Your task to perform on an android device: turn on the 12-hour format for clock Image 0: 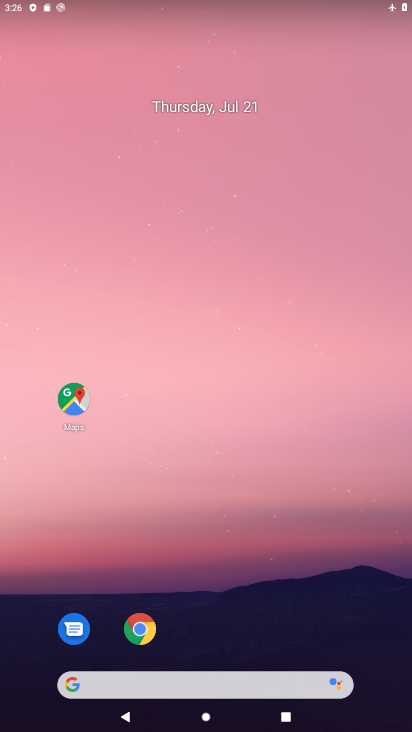
Step 0: drag from (281, 604) to (239, 29)
Your task to perform on an android device: turn on the 12-hour format for clock Image 1: 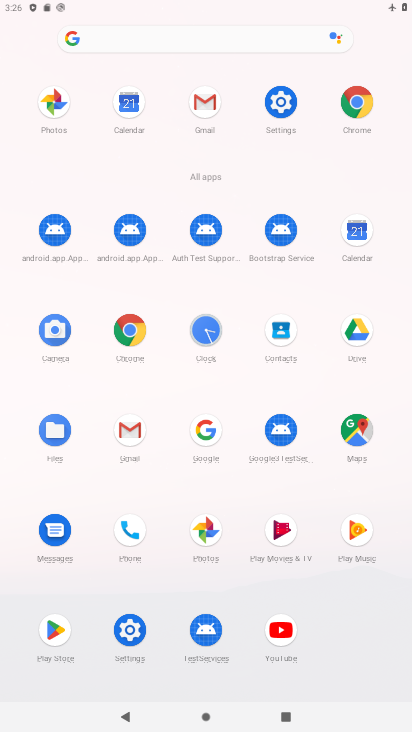
Step 1: click (211, 331)
Your task to perform on an android device: turn on the 12-hour format for clock Image 2: 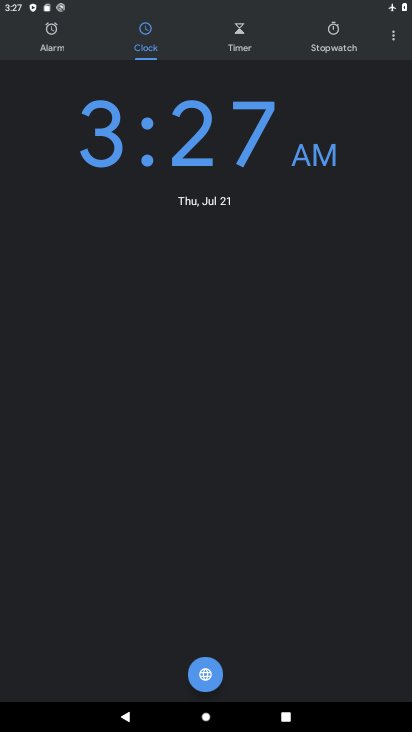
Step 2: click (391, 28)
Your task to perform on an android device: turn on the 12-hour format for clock Image 3: 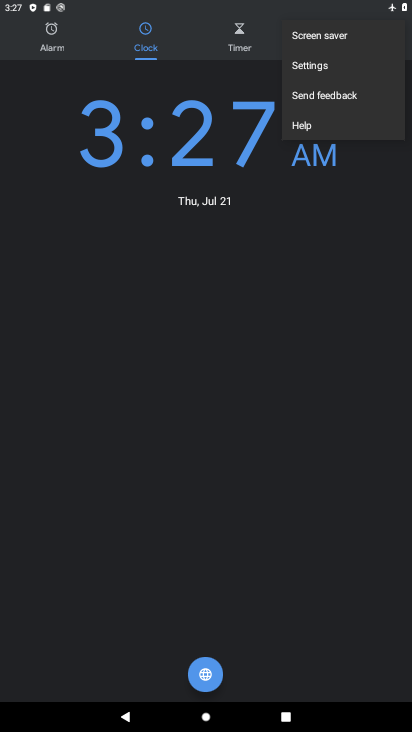
Step 3: click (322, 72)
Your task to perform on an android device: turn on the 12-hour format for clock Image 4: 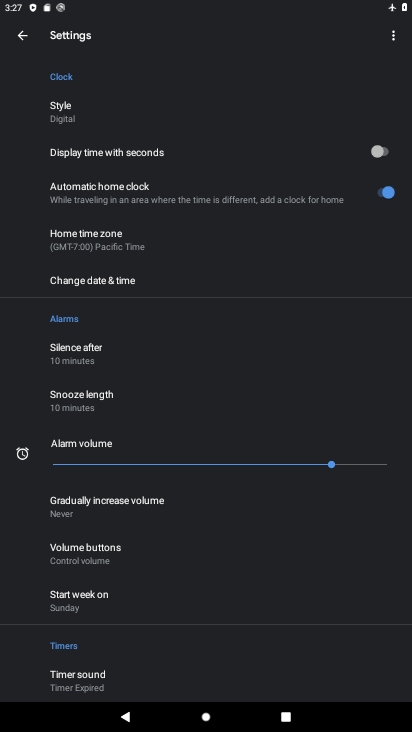
Step 4: click (172, 281)
Your task to perform on an android device: turn on the 12-hour format for clock Image 5: 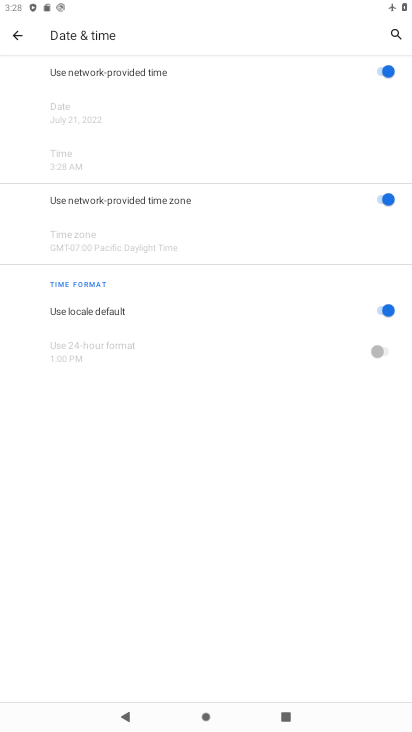
Step 5: task complete